Your task to perform on an android device: Search for seafood restaurants on Google Maps Image 0: 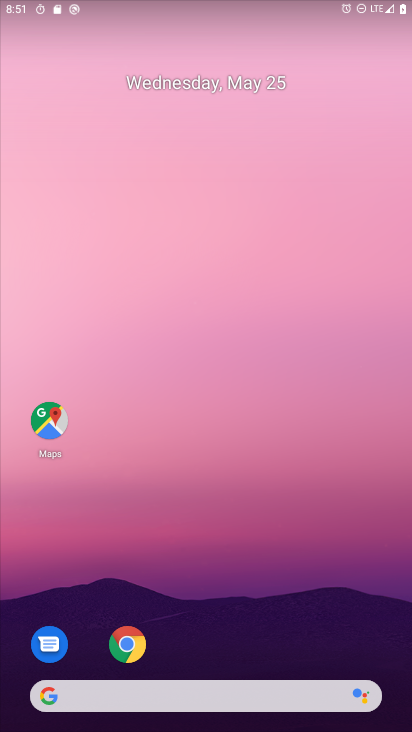
Step 0: drag from (344, 621) to (330, 29)
Your task to perform on an android device: Search for seafood restaurants on Google Maps Image 1: 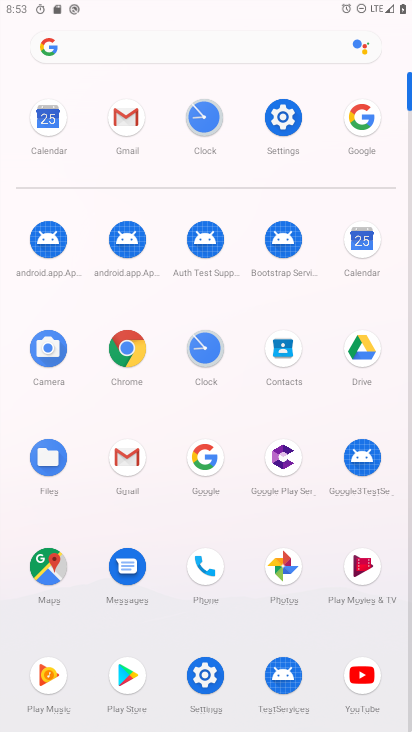
Step 1: click (44, 558)
Your task to perform on an android device: Search for seafood restaurants on Google Maps Image 2: 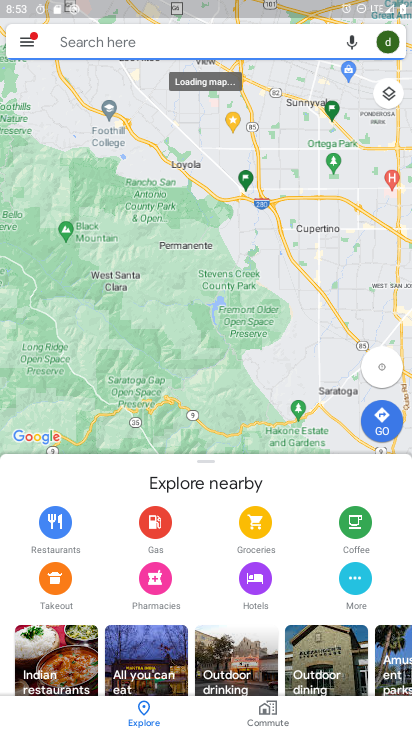
Step 2: click (163, 34)
Your task to perform on an android device: Search for seafood restaurants on Google Maps Image 3: 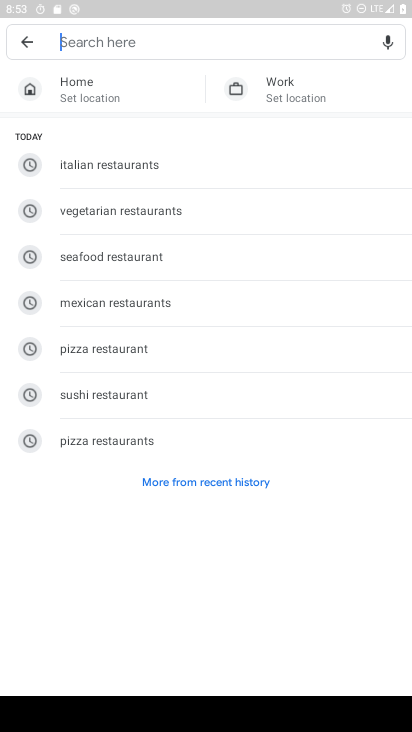
Step 3: click (117, 258)
Your task to perform on an android device: Search for seafood restaurants on Google Maps Image 4: 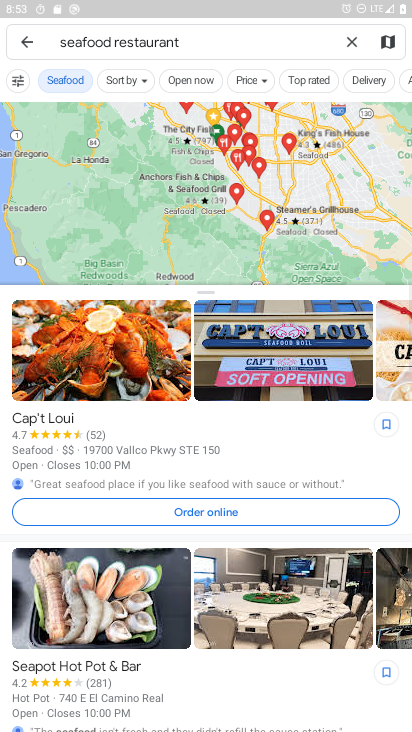
Step 4: task complete